Your task to perform on an android device: set the timer Image 0: 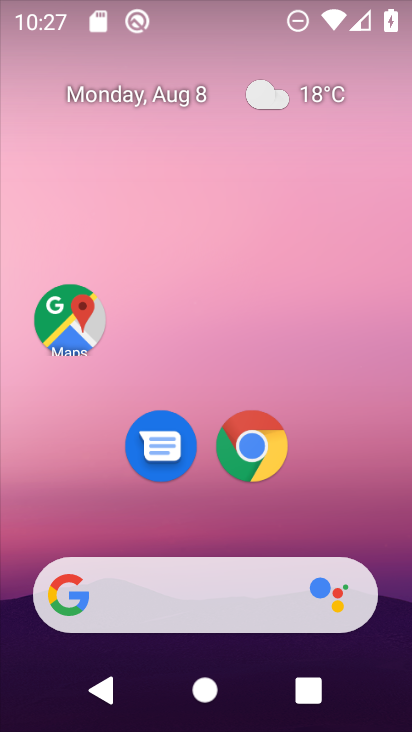
Step 0: drag from (400, 622) to (385, 119)
Your task to perform on an android device: set the timer Image 1: 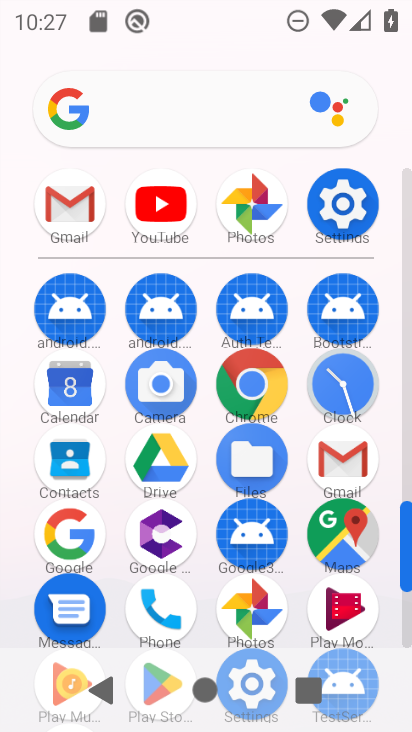
Step 1: click (344, 387)
Your task to perform on an android device: set the timer Image 2: 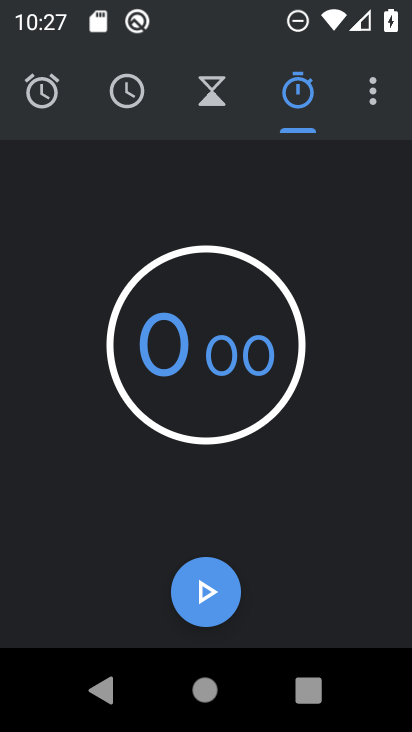
Step 2: click (211, 88)
Your task to perform on an android device: set the timer Image 3: 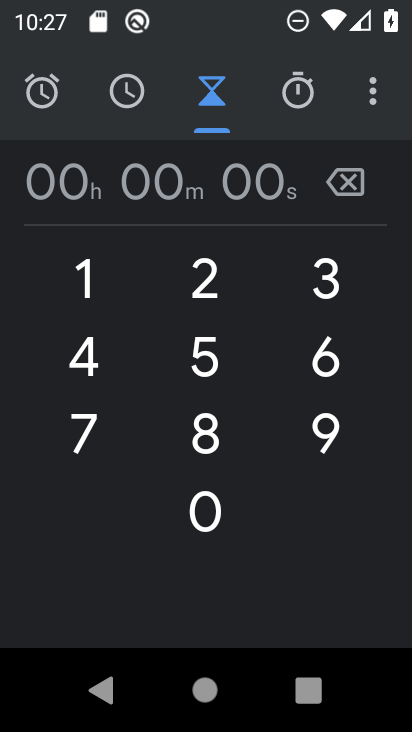
Step 3: click (85, 282)
Your task to perform on an android device: set the timer Image 4: 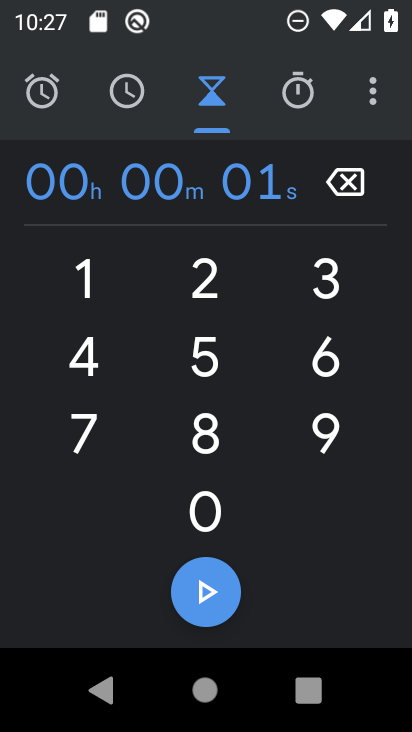
Step 4: click (324, 281)
Your task to perform on an android device: set the timer Image 5: 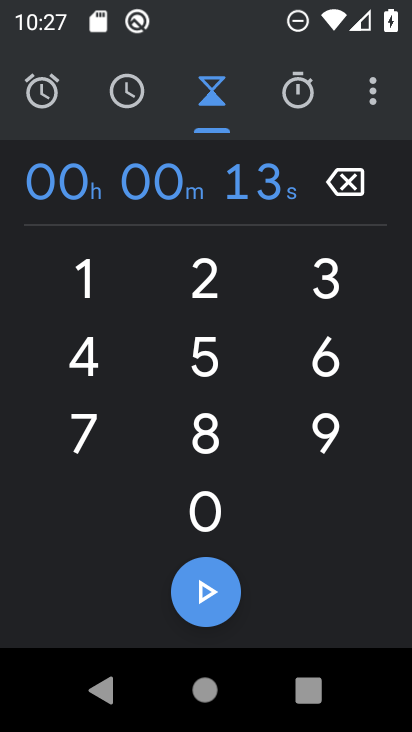
Step 5: click (202, 512)
Your task to perform on an android device: set the timer Image 6: 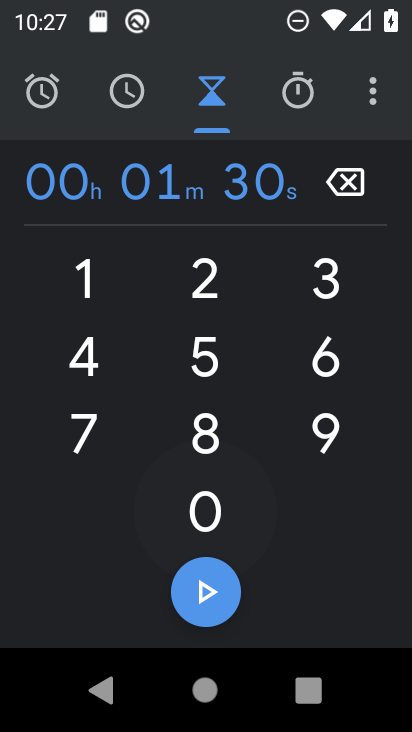
Step 6: click (202, 512)
Your task to perform on an android device: set the timer Image 7: 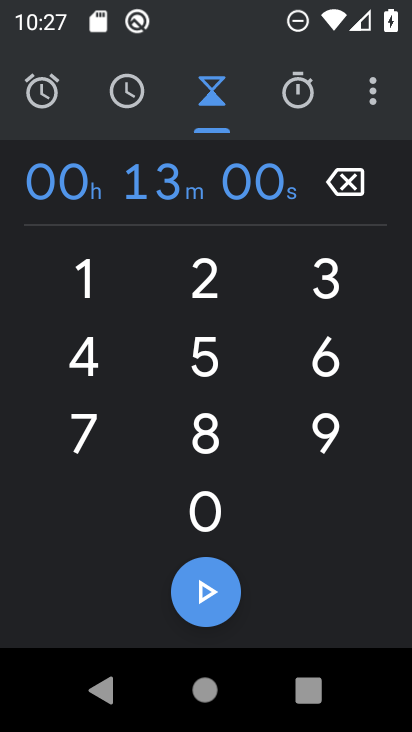
Step 7: click (202, 512)
Your task to perform on an android device: set the timer Image 8: 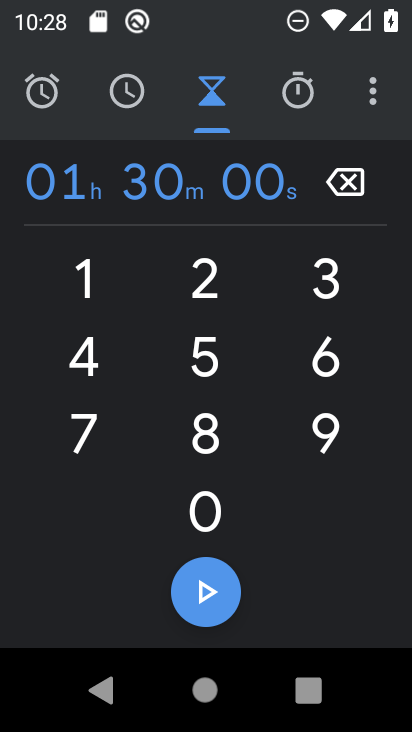
Step 8: task complete